Your task to perform on an android device: set the timer Image 0: 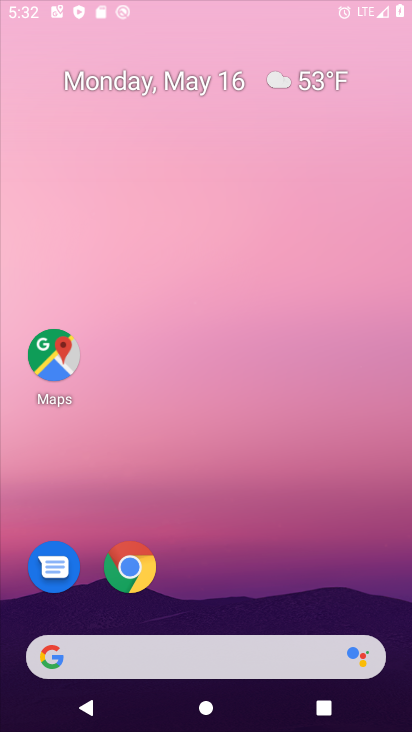
Step 0: drag from (247, 631) to (242, 13)
Your task to perform on an android device: set the timer Image 1: 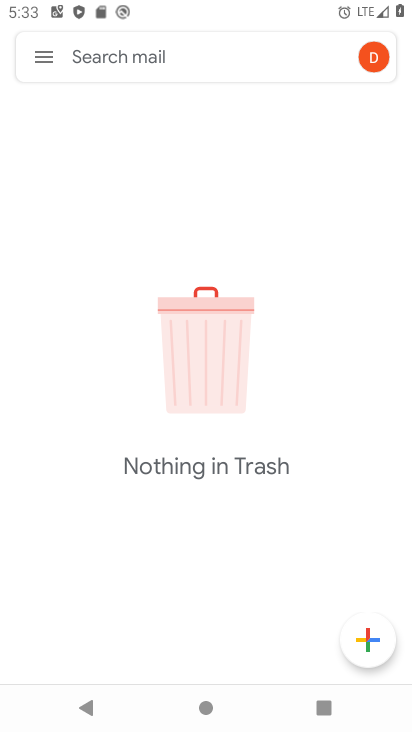
Step 1: press home button
Your task to perform on an android device: set the timer Image 2: 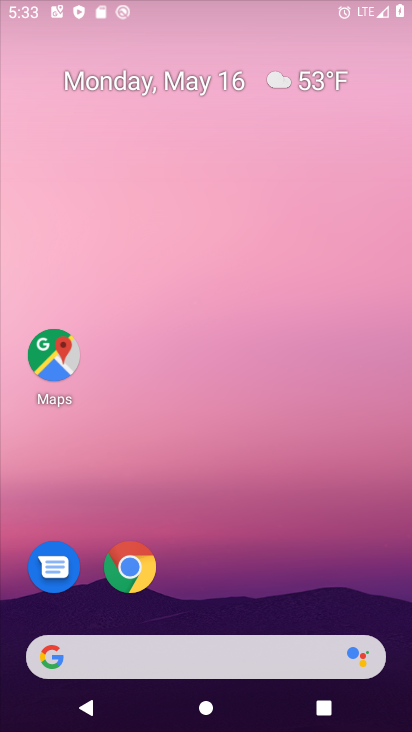
Step 2: drag from (200, 624) to (150, 70)
Your task to perform on an android device: set the timer Image 3: 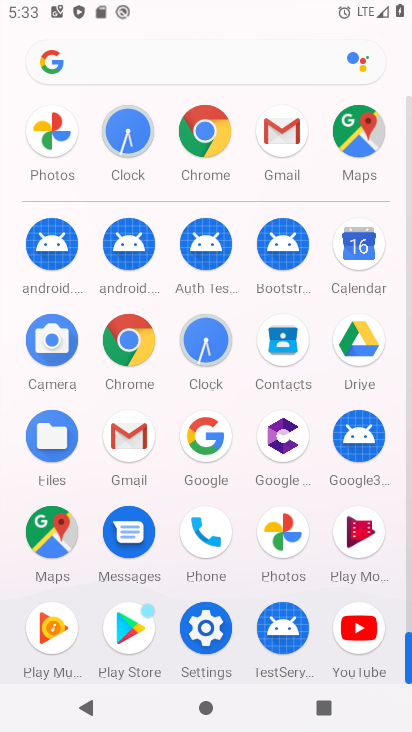
Step 3: click (217, 347)
Your task to perform on an android device: set the timer Image 4: 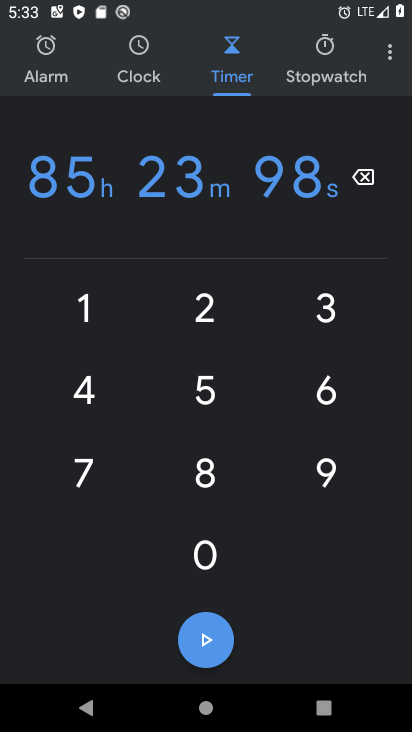
Step 4: click (209, 641)
Your task to perform on an android device: set the timer Image 5: 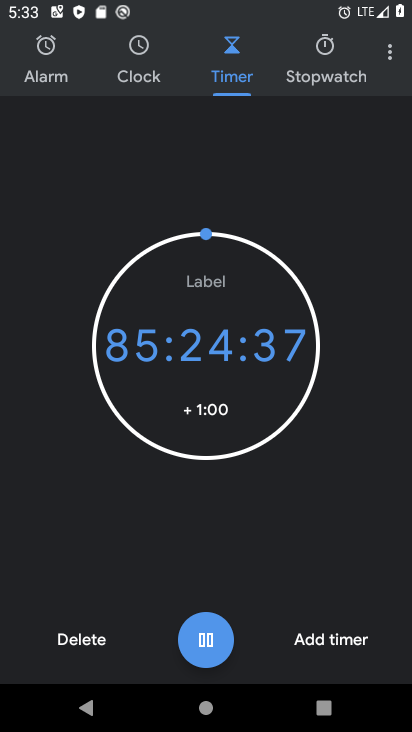
Step 5: task complete